Your task to perform on an android device: Go to battery settings Image 0: 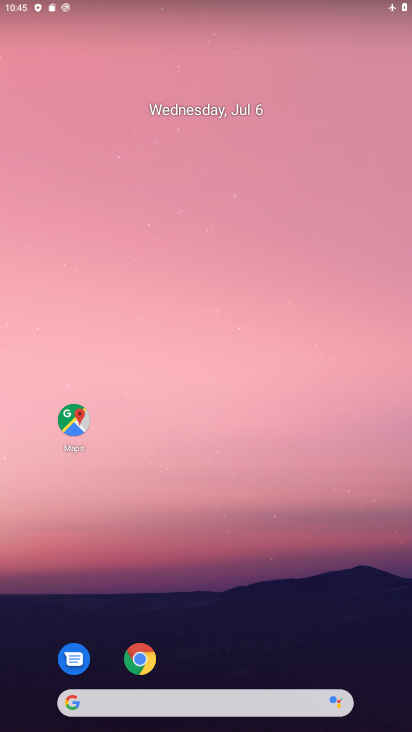
Step 0: drag from (226, 436) to (226, 172)
Your task to perform on an android device: Go to battery settings Image 1: 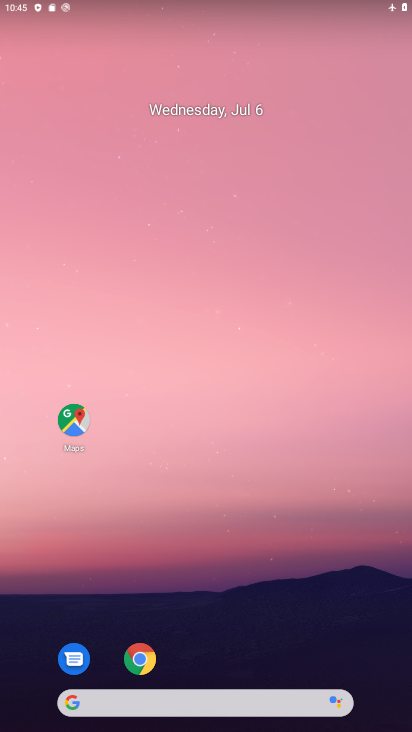
Step 1: drag from (226, 659) to (241, 159)
Your task to perform on an android device: Go to battery settings Image 2: 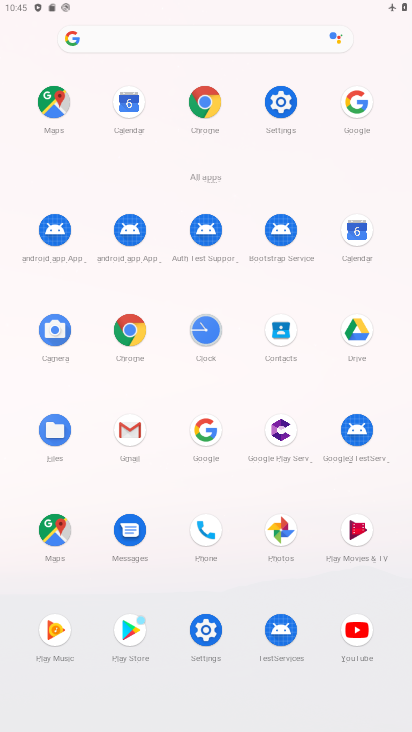
Step 2: click (277, 125)
Your task to perform on an android device: Go to battery settings Image 3: 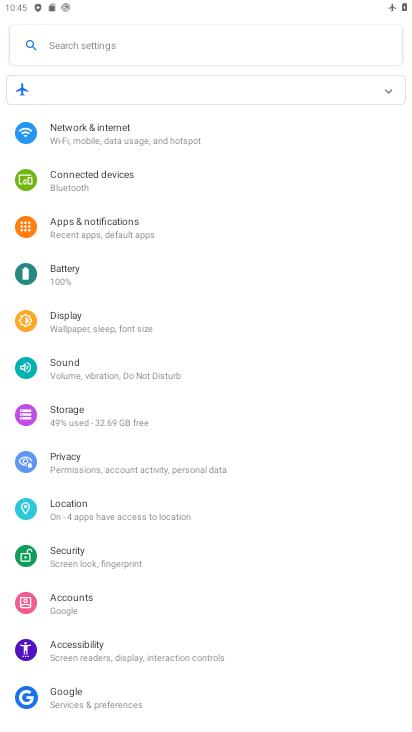
Step 3: click (104, 275)
Your task to perform on an android device: Go to battery settings Image 4: 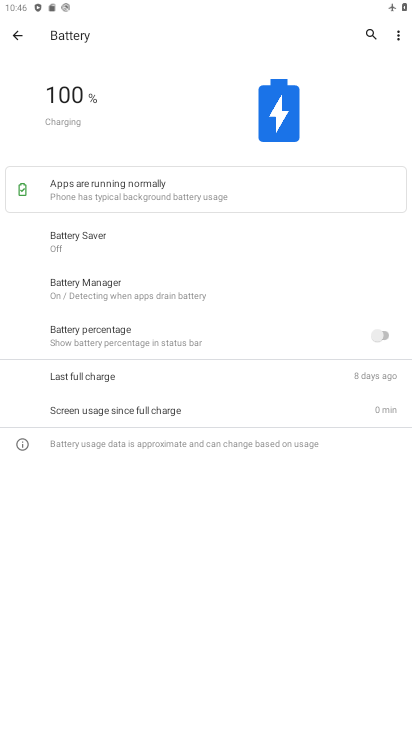
Step 4: task complete